Your task to perform on an android device: Go to privacy settings Image 0: 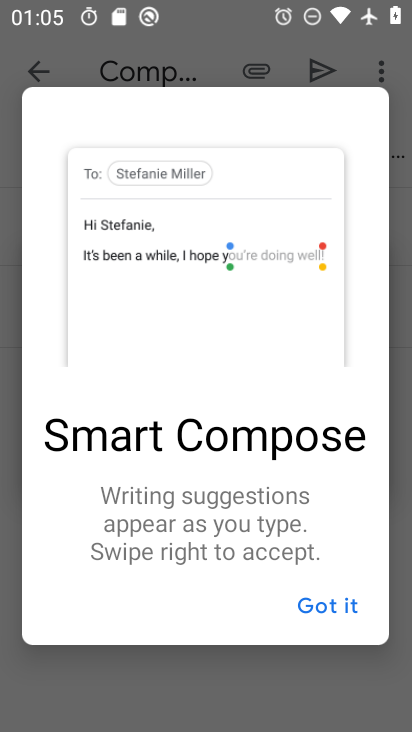
Step 0: press home button
Your task to perform on an android device: Go to privacy settings Image 1: 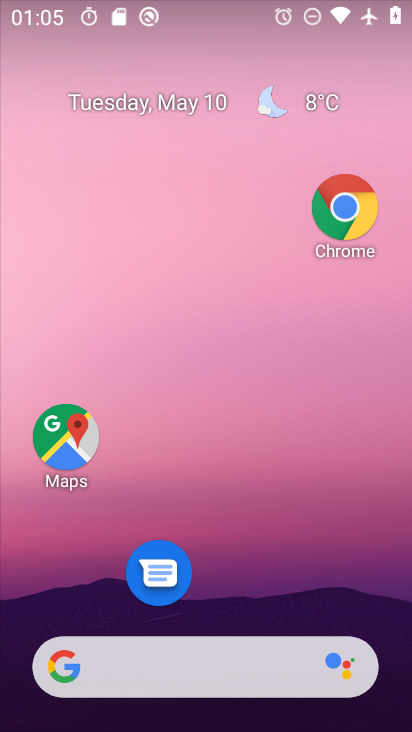
Step 1: drag from (251, 600) to (227, 215)
Your task to perform on an android device: Go to privacy settings Image 2: 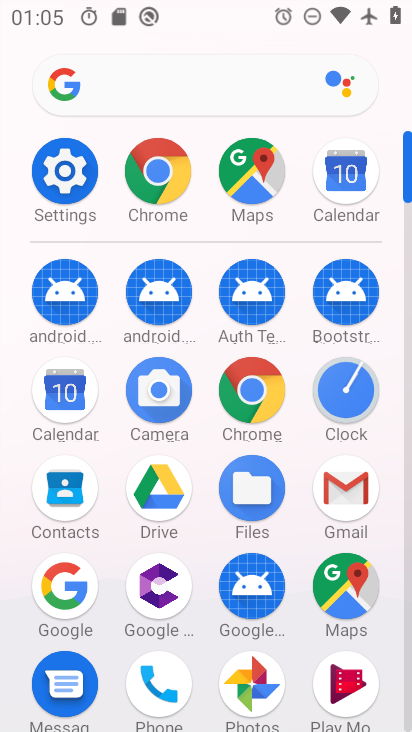
Step 2: click (74, 191)
Your task to perform on an android device: Go to privacy settings Image 3: 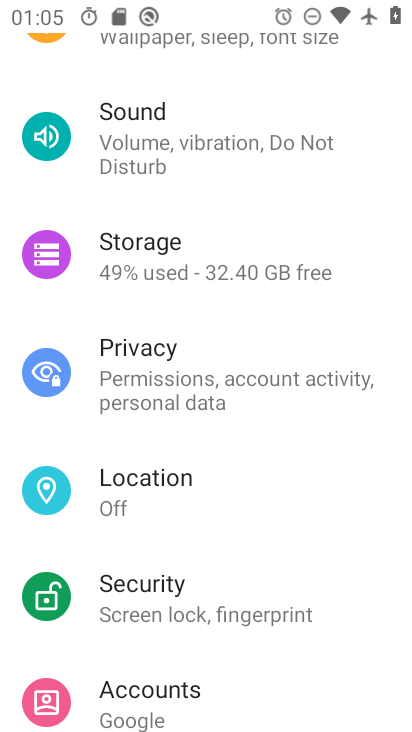
Step 3: click (175, 370)
Your task to perform on an android device: Go to privacy settings Image 4: 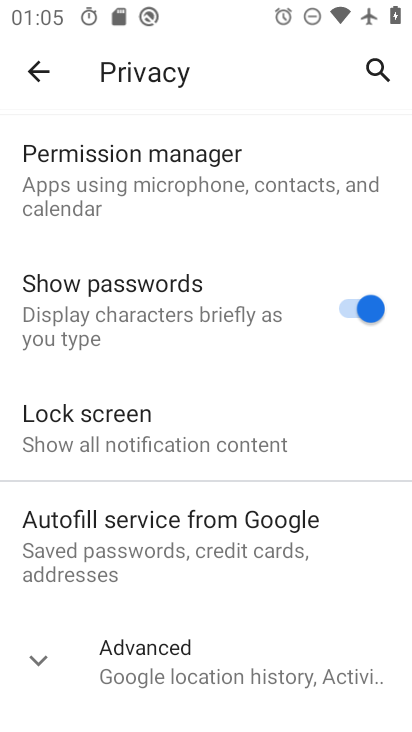
Step 4: task complete